Your task to perform on an android device: Go to display settings Image 0: 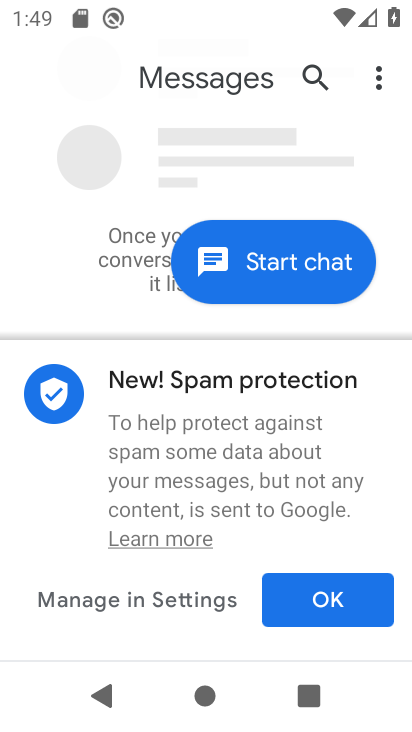
Step 0: press home button
Your task to perform on an android device: Go to display settings Image 1: 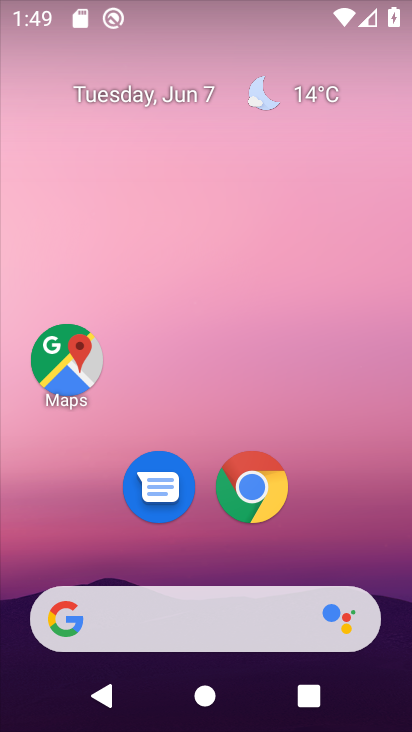
Step 1: drag from (163, 256) to (52, 727)
Your task to perform on an android device: Go to display settings Image 2: 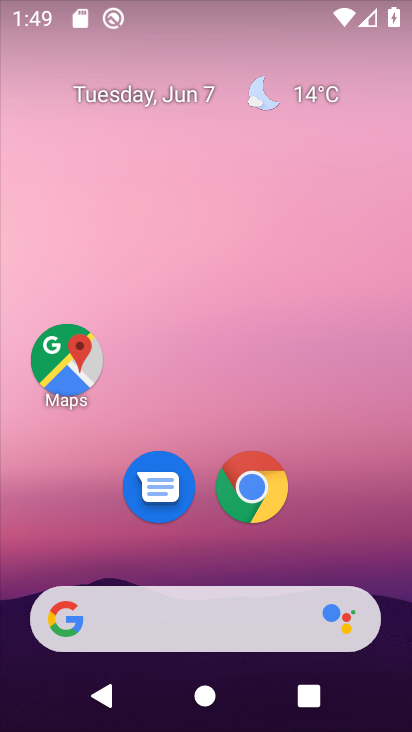
Step 2: drag from (215, 562) to (339, 15)
Your task to perform on an android device: Go to display settings Image 3: 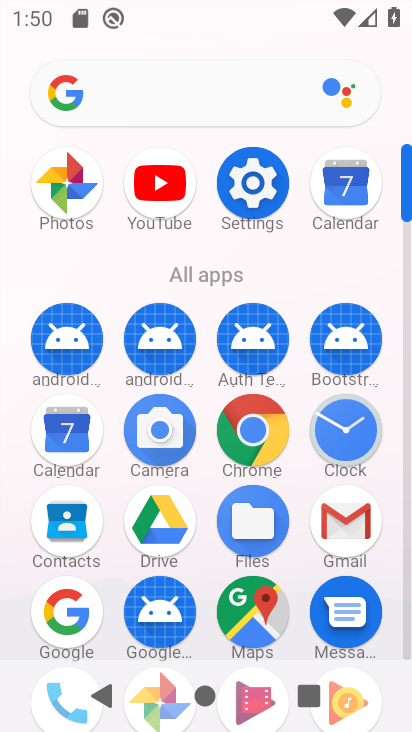
Step 3: click (254, 196)
Your task to perform on an android device: Go to display settings Image 4: 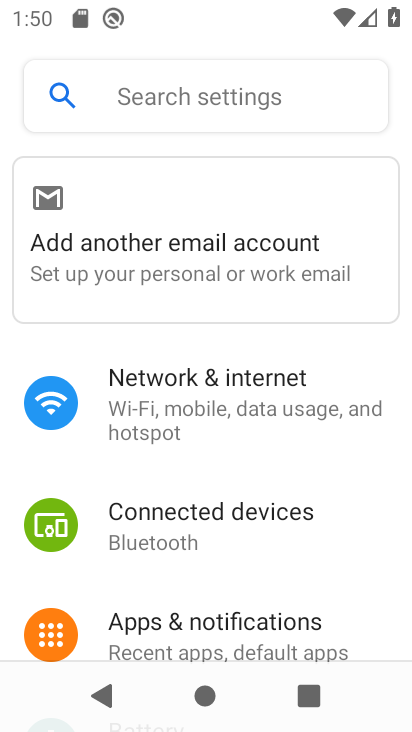
Step 4: drag from (197, 534) to (180, 100)
Your task to perform on an android device: Go to display settings Image 5: 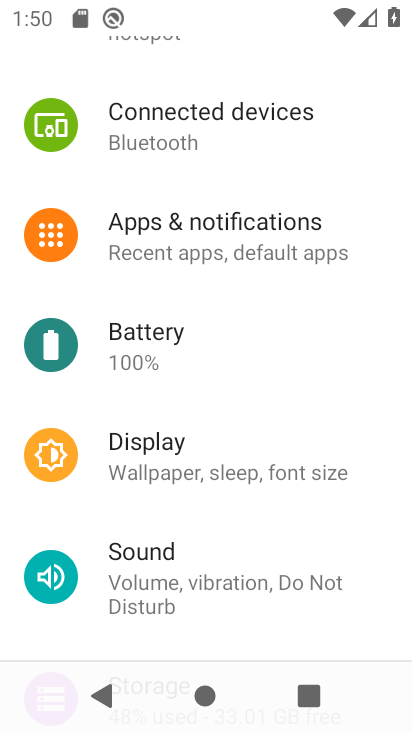
Step 5: click (159, 432)
Your task to perform on an android device: Go to display settings Image 6: 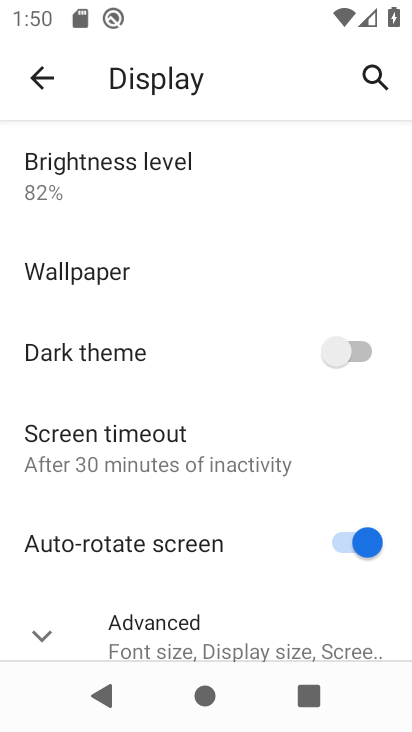
Step 6: click (282, 643)
Your task to perform on an android device: Go to display settings Image 7: 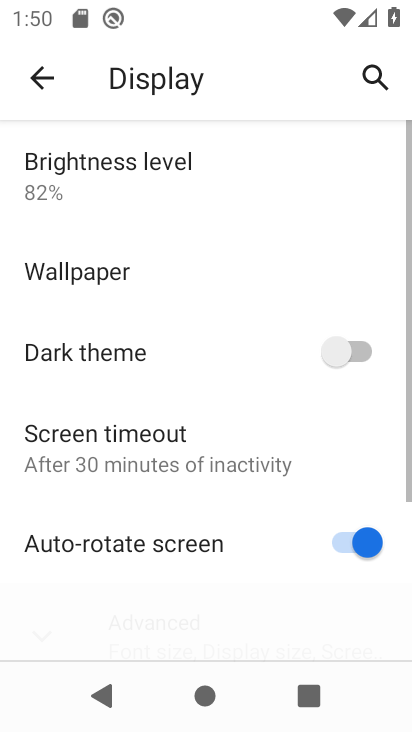
Step 7: task complete